Your task to perform on an android device: Open privacy settings Image 0: 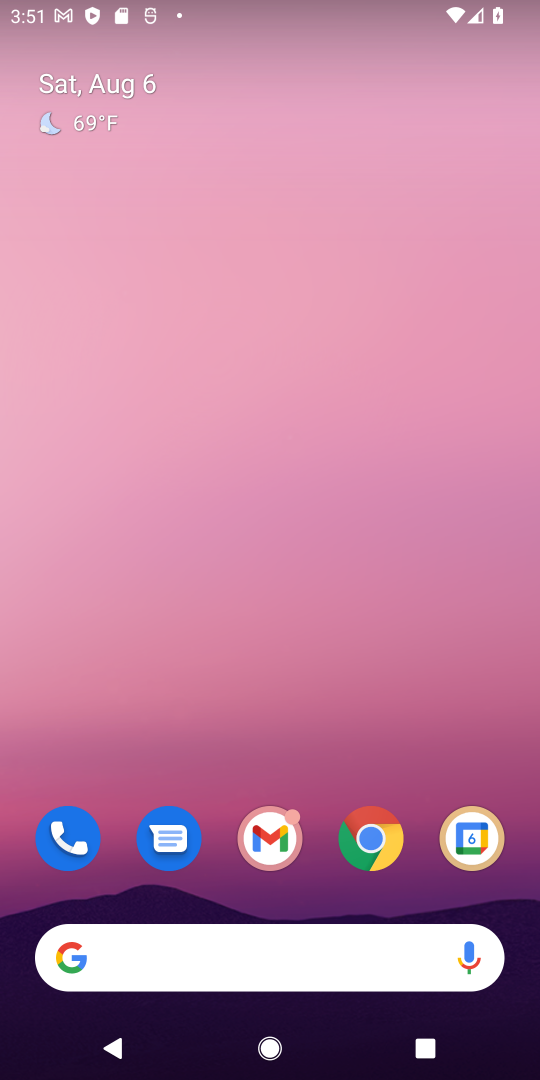
Step 0: drag from (154, 752) to (464, 63)
Your task to perform on an android device: Open privacy settings Image 1: 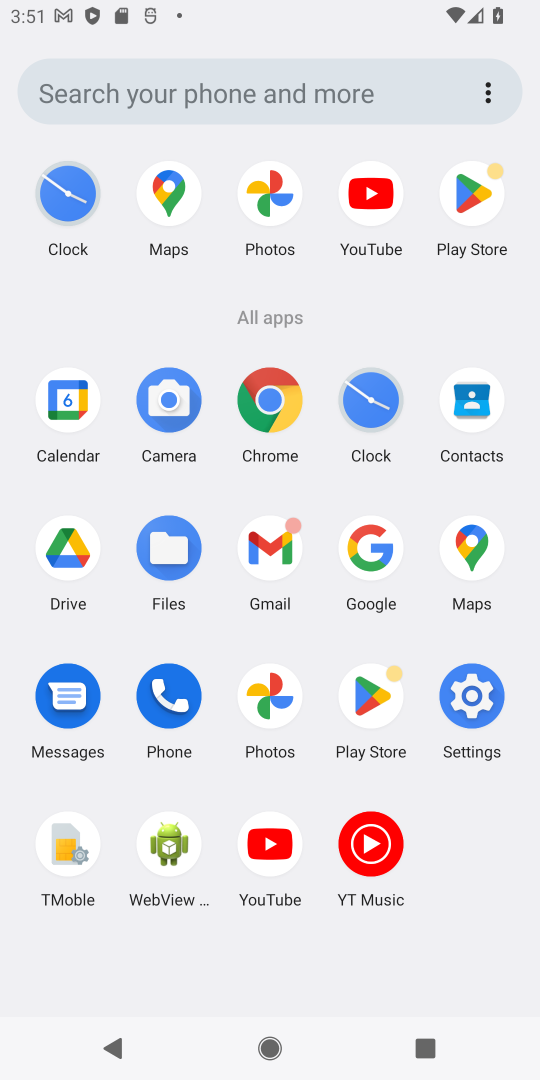
Step 1: click (468, 723)
Your task to perform on an android device: Open privacy settings Image 2: 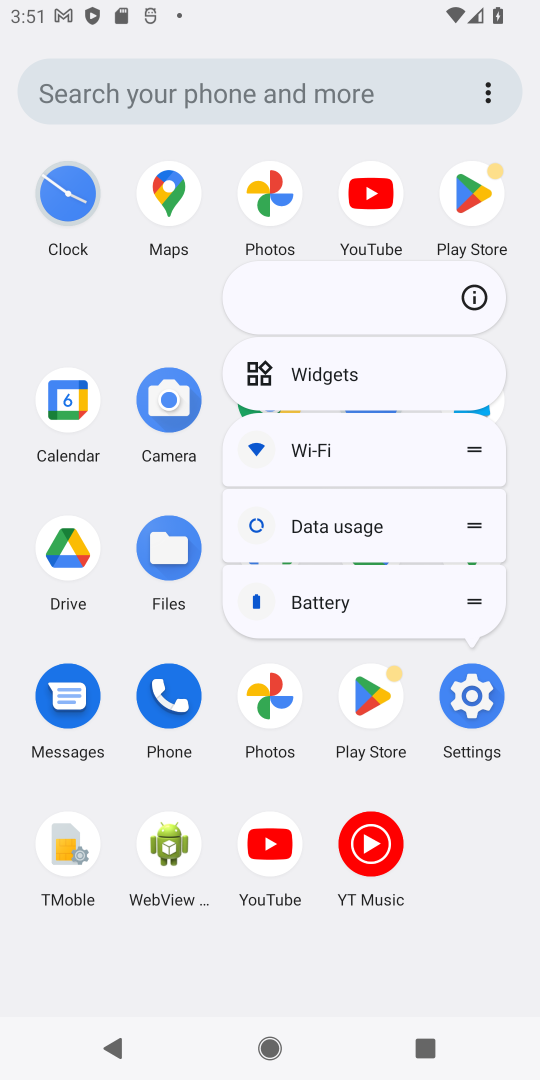
Step 2: click (478, 702)
Your task to perform on an android device: Open privacy settings Image 3: 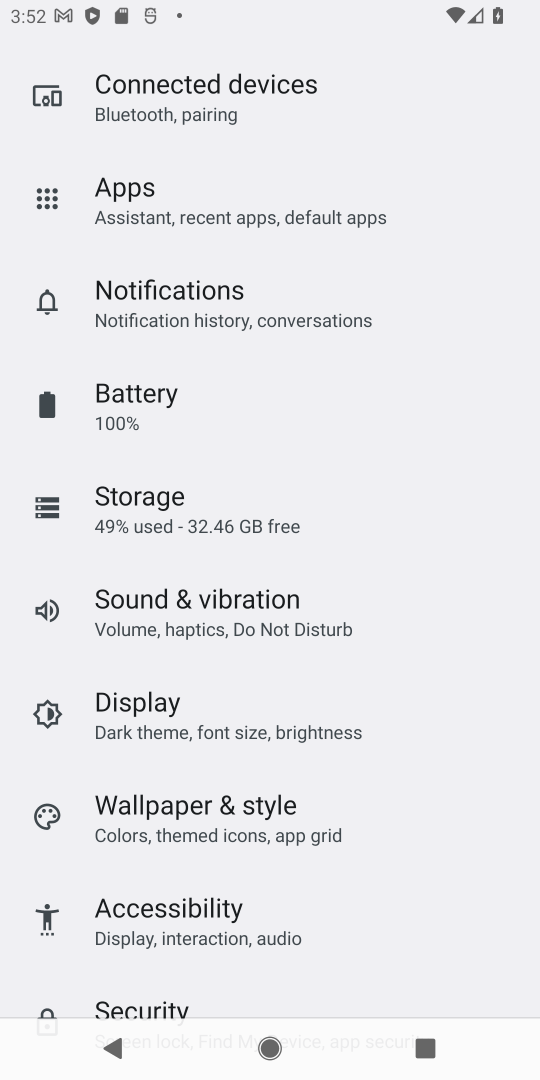
Step 3: drag from (57, 821) to (283, 241)
Your task to perform on an android device: Open privacy settings Image 4: 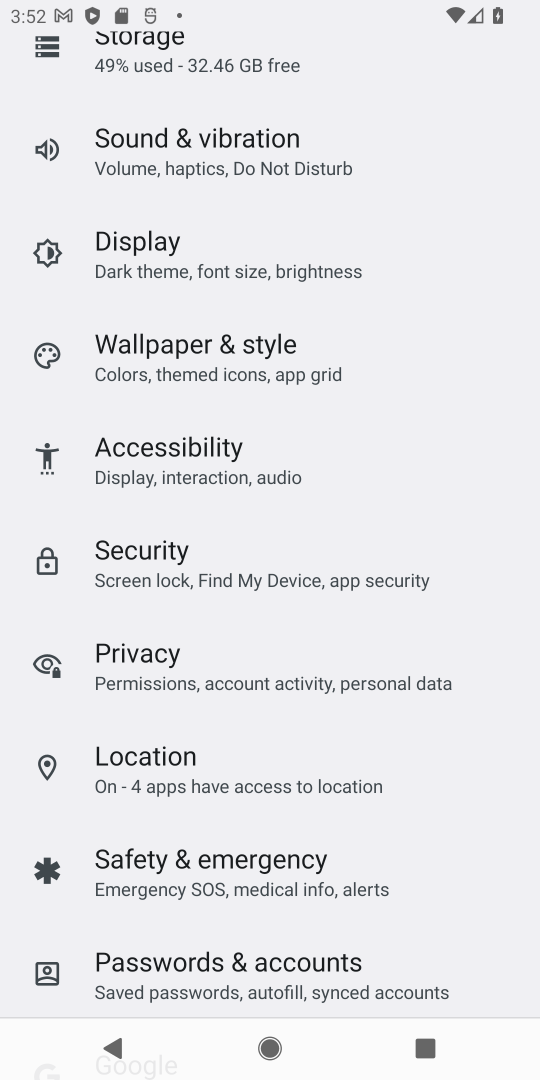
Step 4: click (183, 661)
Your task to perform on an android device: Open privacy settings Image 5: 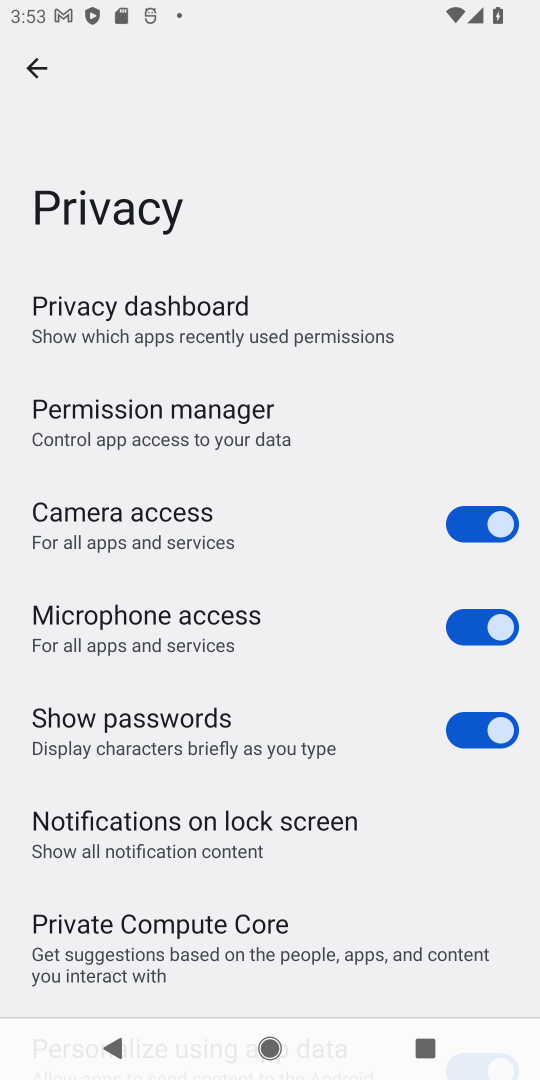
Step 5: task complete